Your task to perform on an android device: turn pop-ups off in chrome Image 0: 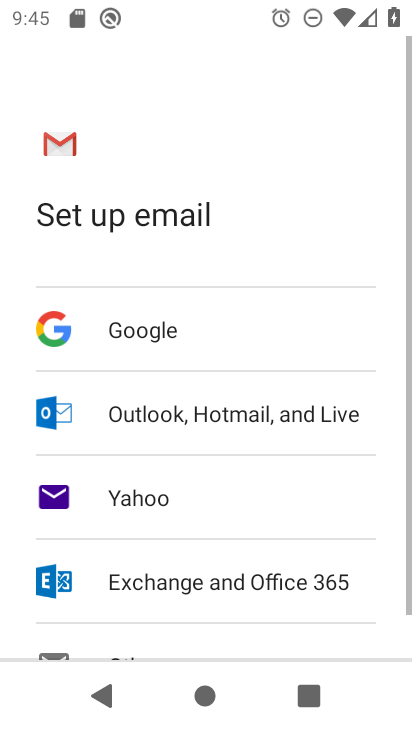
Step 0: press home button
Your task to perform on an android device: turn pop-ups off in chrome Image 1: 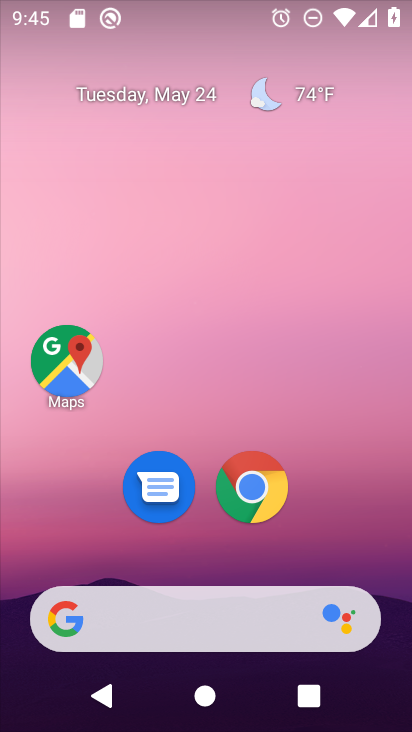
Step 1: click (252, 491)
Your task to perform on an android device: turn pop-ups off in chrome Image 2: 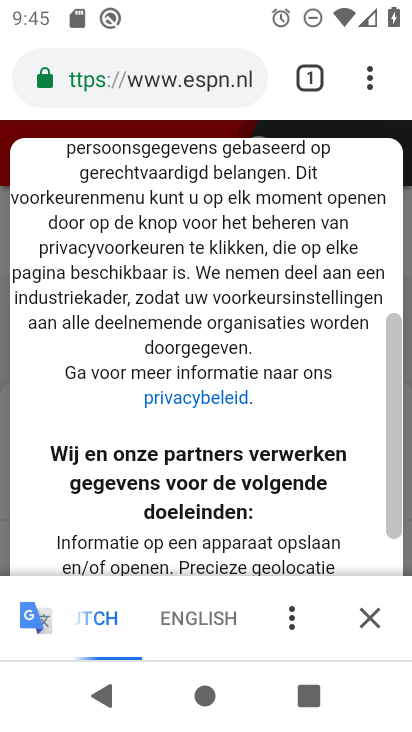
Step 2: click (364, 83)
Your task to perform on an android device: turn pop-ups off in chrome Image 3: 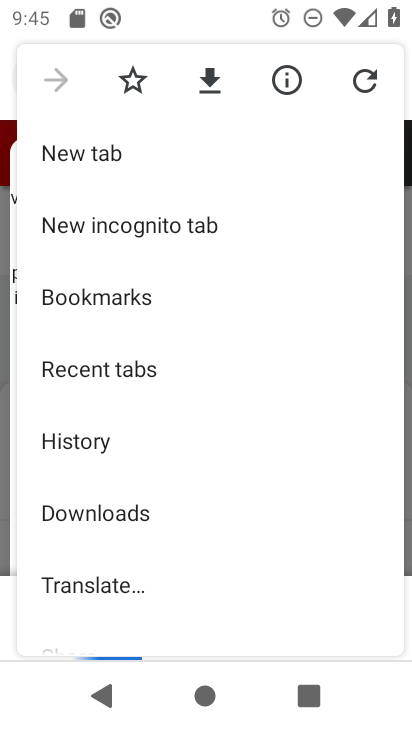
Step 3: drag from (244, 549) to (236, 99)
Your task to perform on an android device: turn pop-ups off in chrome Image 4: 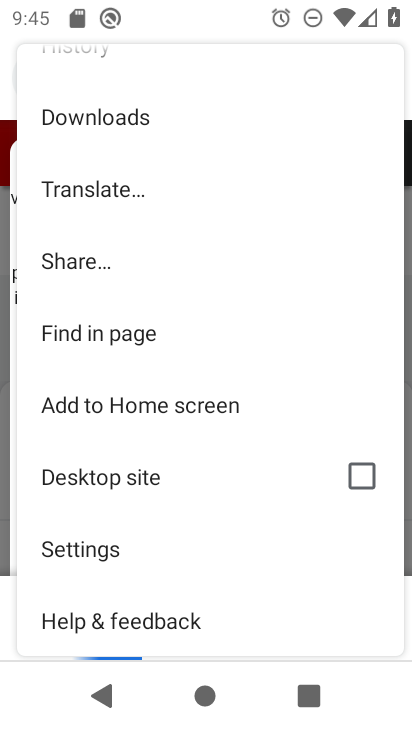
Step 4: click (100, 556)
Your task to perform on an android device: turn pop-ups off in chrome Image 5: 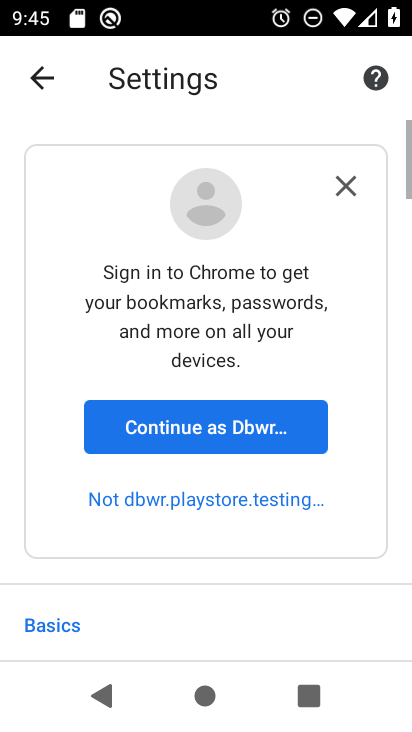
Step 5: drag from (183, 585) to (210, 42)
Your task to perform on an android device: turn pop-ups off in chrome Image 6: 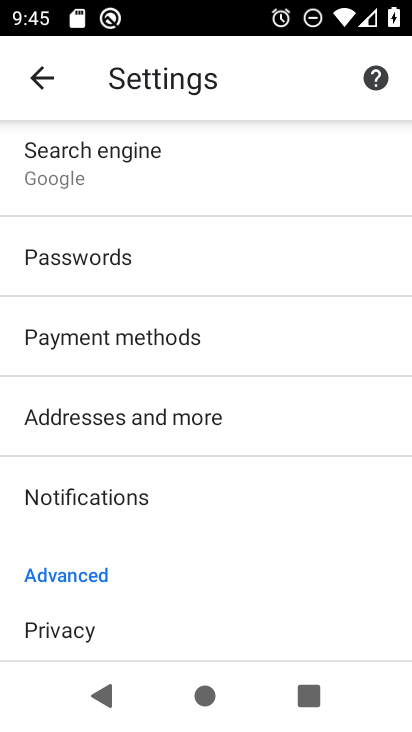
Step 6: drag from (179, 530) to (179, 205)
Your task to perform on an android device: turn pop-ups off in chrome Image 7: 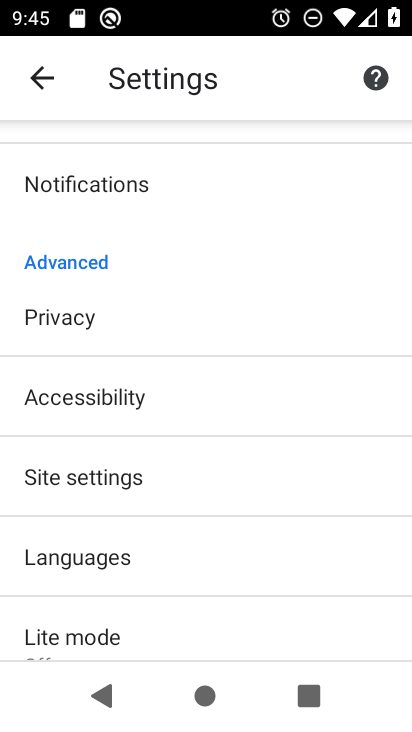
Step 7: click (88, 485)
Your task to perform on an android device: turn pop-ups off in chrome Image 8: 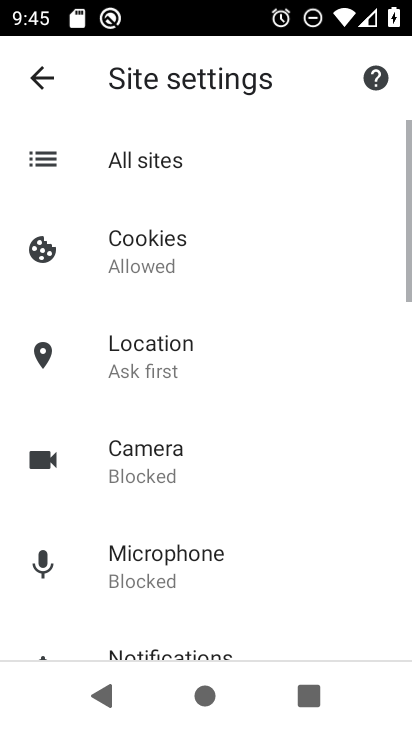
Step 8: drag from (234, 529) to (273, 126)
Your task to perform on an android device: turn pop-ups off in chrome Image 9: 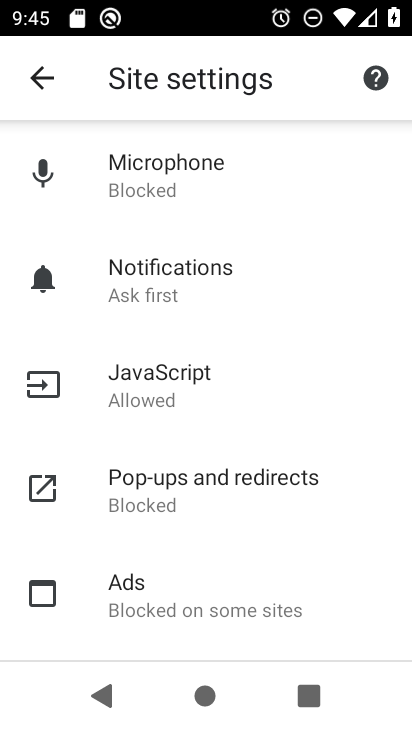
Step 9: click (183, 486)
Your task to perform on an android device: turn pop-ups off in chrome Image 10: 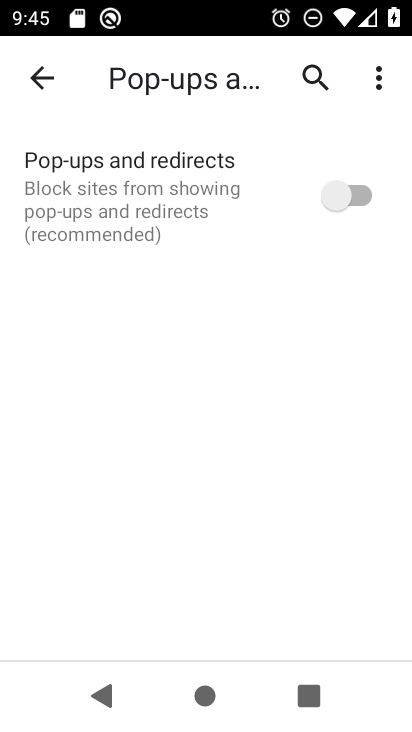
Step 10: task complete